Your task to perform on an android device: turn notification dots off Image 0: 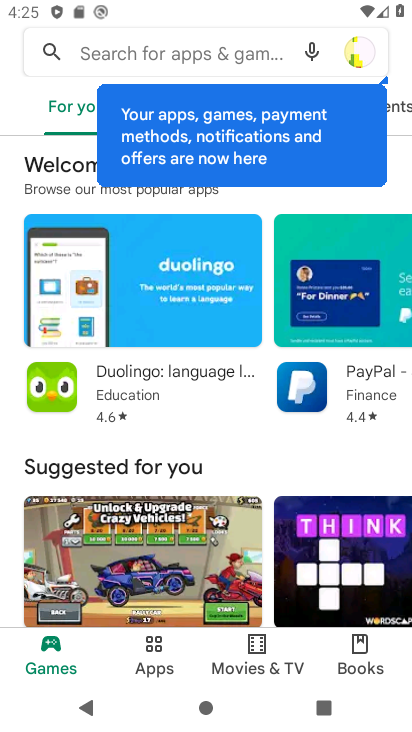
Step 0: press home button
Your task to perform on an android device: turn notification dots off Image 1: 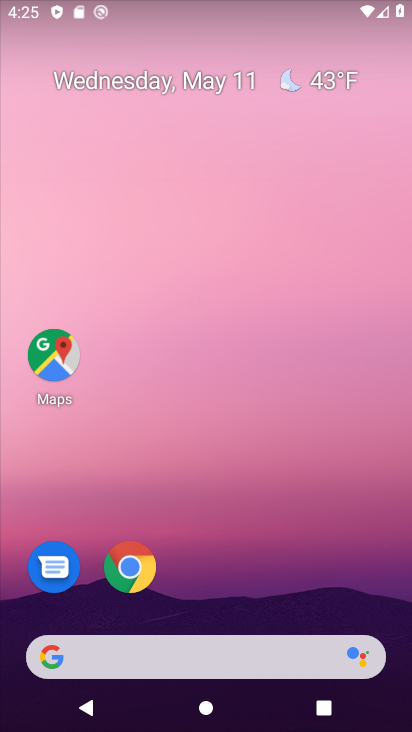
Step 1: drag from (228, 612) to (344, 59)
Your task to perform on an android device: turn notification dots off Image 2: 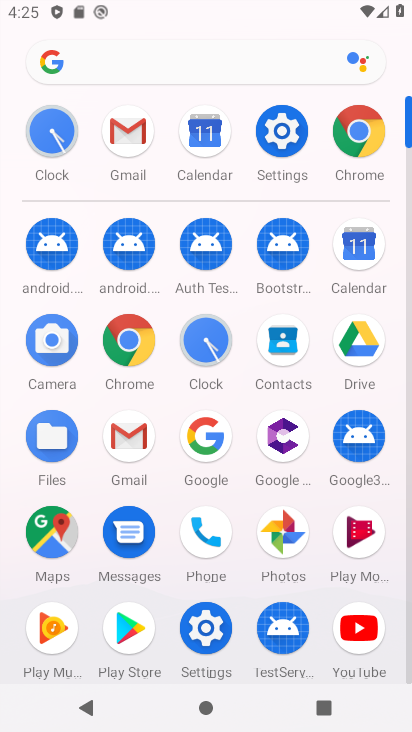
Step 2: click (309, 127)
Your task to perform on an android device: turn notification dots off Image 3: 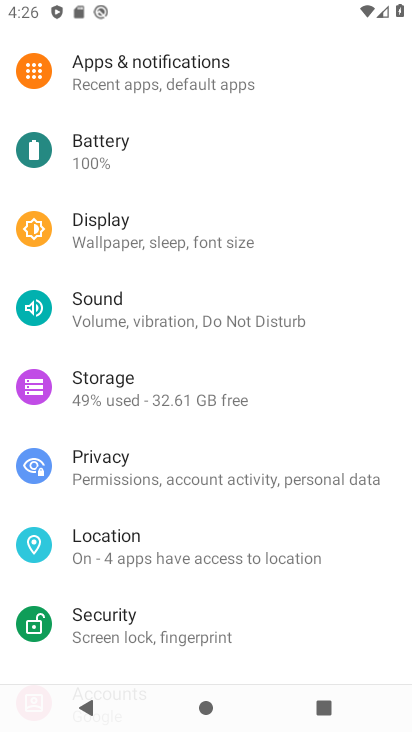
Step 3: drag from (303, 117) to (284, 316)
Your task to perform on an android device: turn notification dots off Image 4: 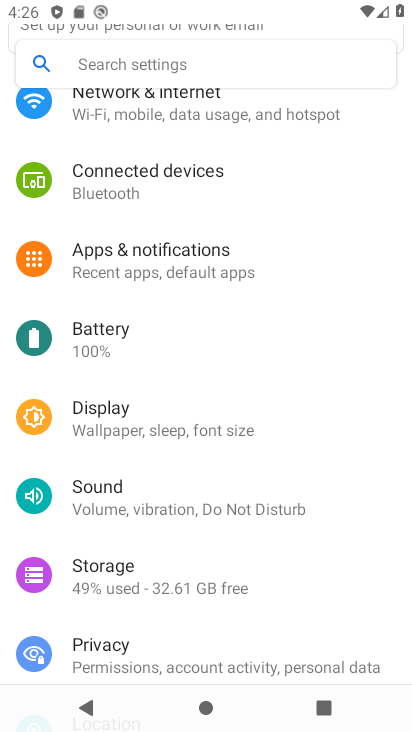
Step 4: click (183, 249)
Your task to perform on an android device: turn notification dots off Image 5: 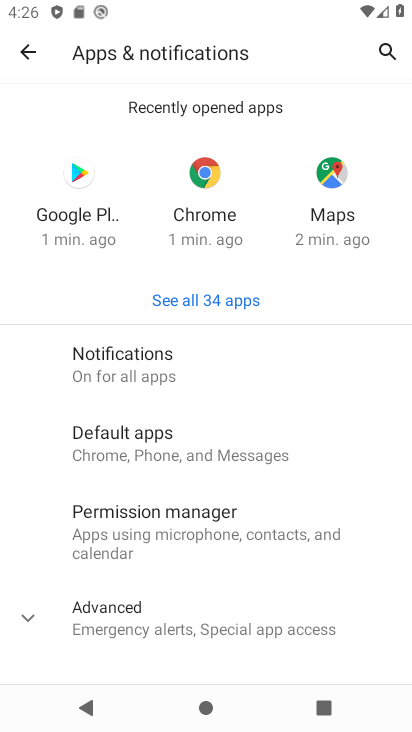
Step 5: click (157, 361)
Your task to perform on an android device: turn notification dots off Image 6: 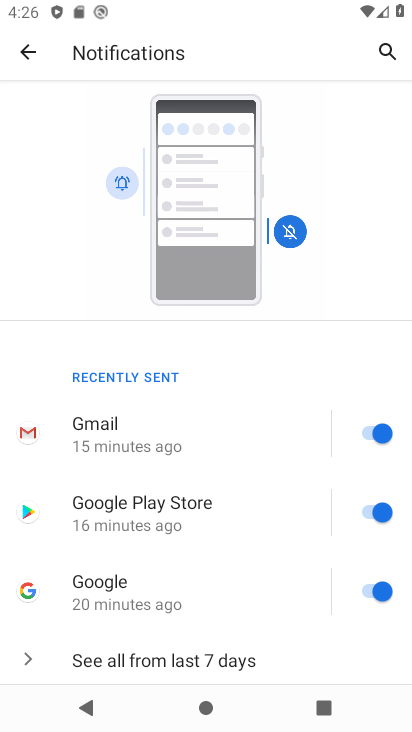
Step 6: drag from (191, 627) to (265, 247)
Your task to perform on an android device: turn notification dots off Image 7: 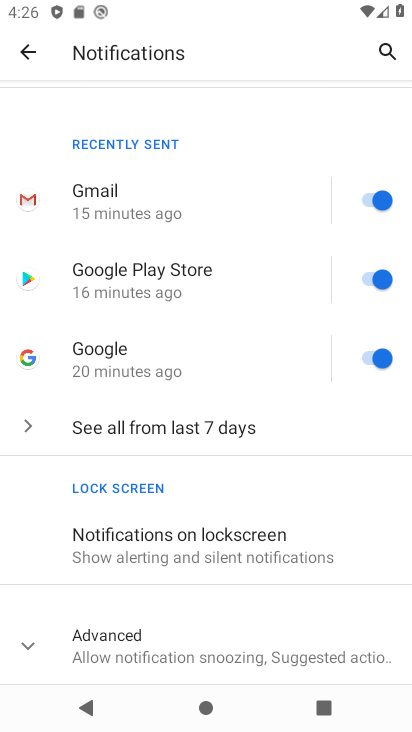
Step 7: click (240, 644)
Your task to perform on an android device: turn notification dots off Image 8: 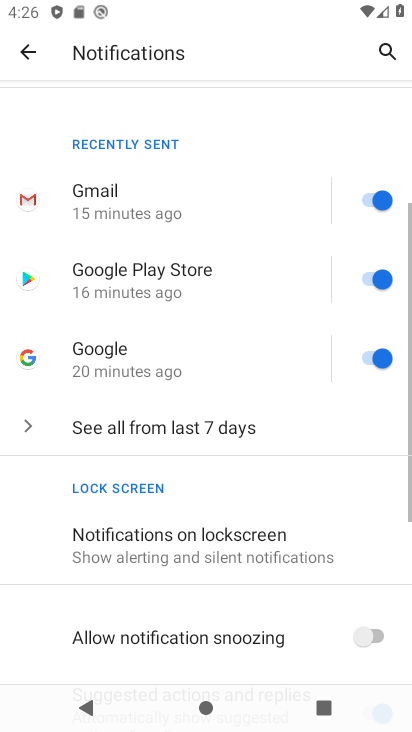
Step 8: task complete